Your task to perform on an android device: turn off location history Image 0: 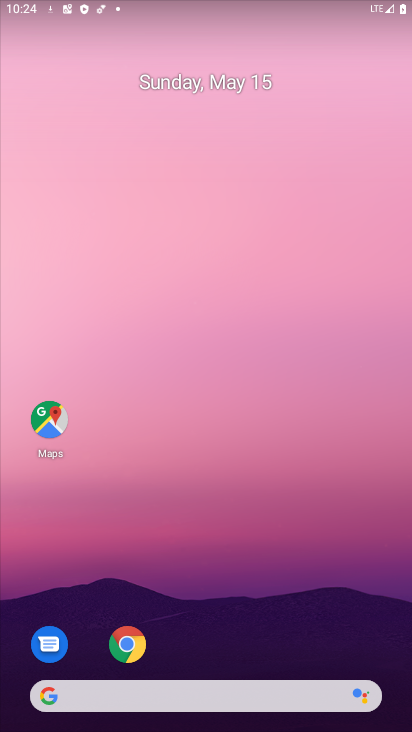
Step 0: drag from (250, 715) to (217, 357)
Your task to perform on an android device: turn off location history Image 1: 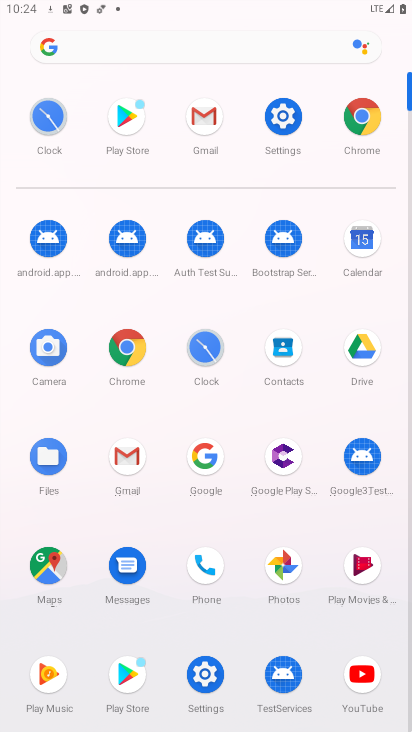
Step 1: click (207, 684)
Your task to perform on an android device: turn off location history Image 2: 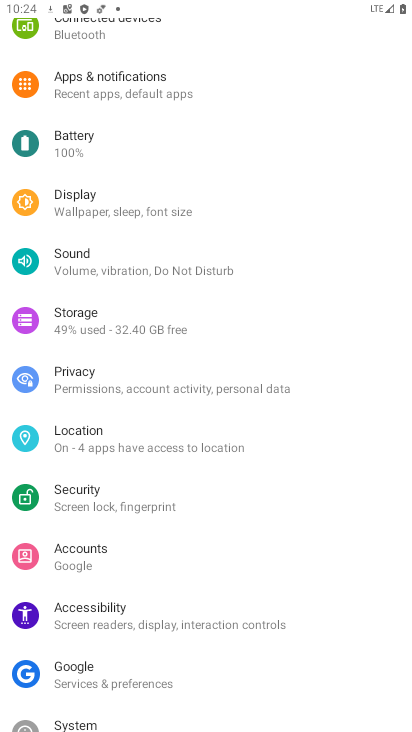
Step 2: drag from (128, 298) to (136, 599)
Your task to perform on an android device: turn off location history Image 3: 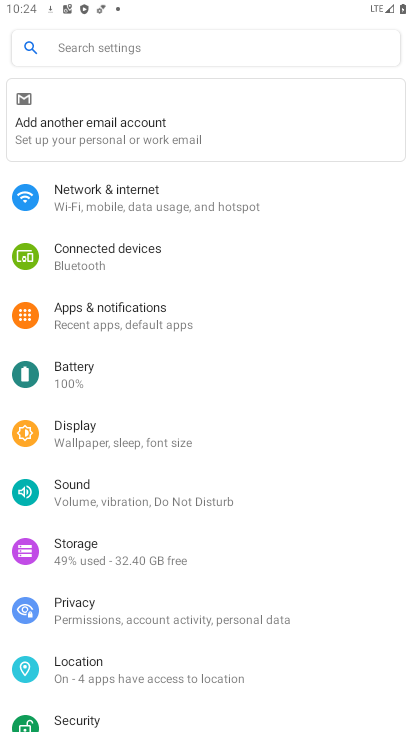
Step 3: click (118, 52)
Your task to perform on an android device: turn off location history Image 4: 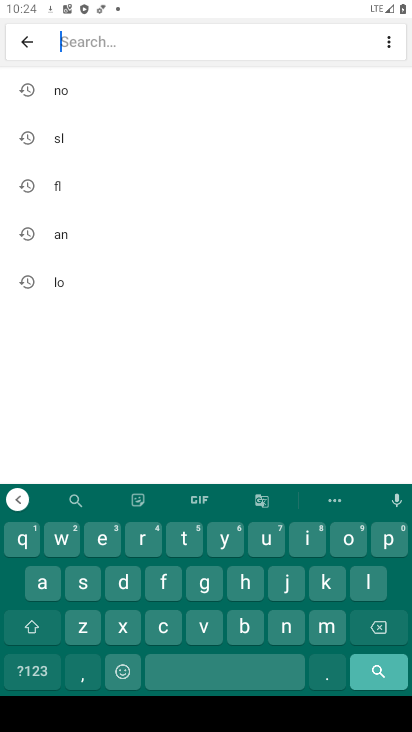
Step 4: click (76, 282)
Your task to perform on an android device: turn off location history Image 5: 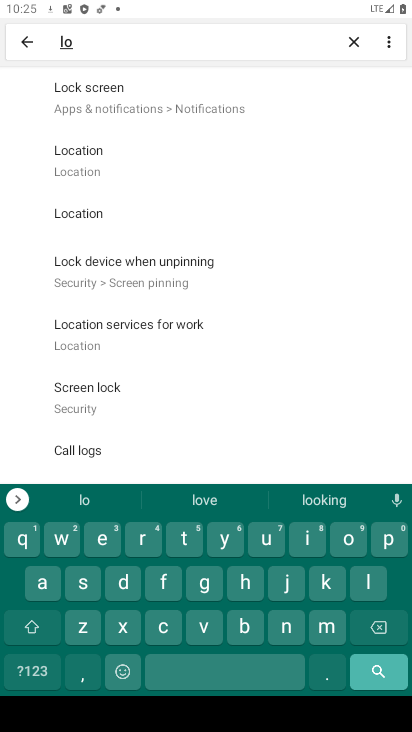
Step 5: click (119, 170)
Your task to perform on an android device: turn off location history Image 6: 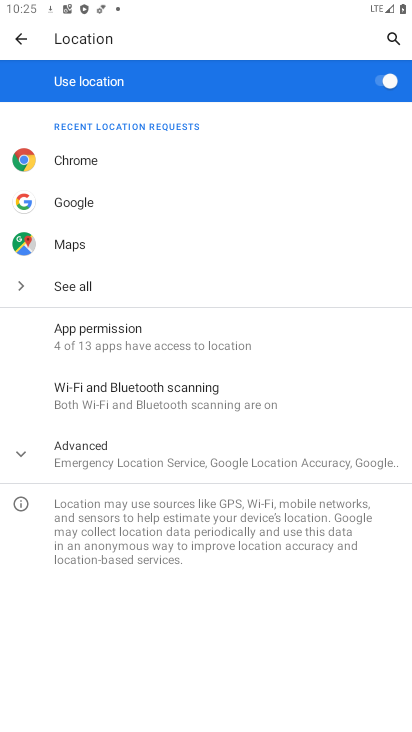
Step 6: click (57, 471)
Your task to perform on an android device: turn off location history Image 7: 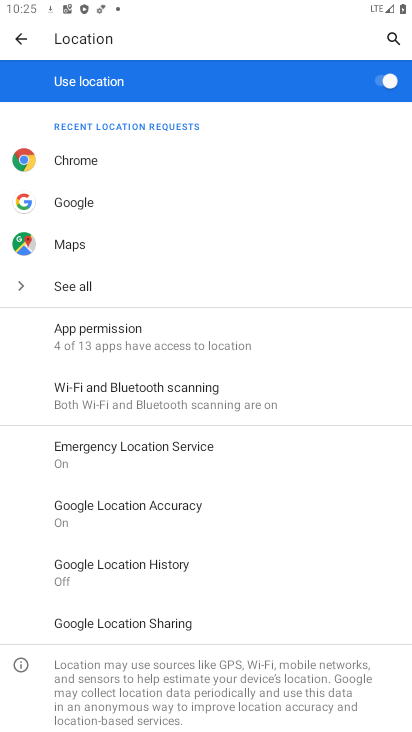
Step 7: click (179, 564)
Your task to perform on an android device: turn off location history Image 8: 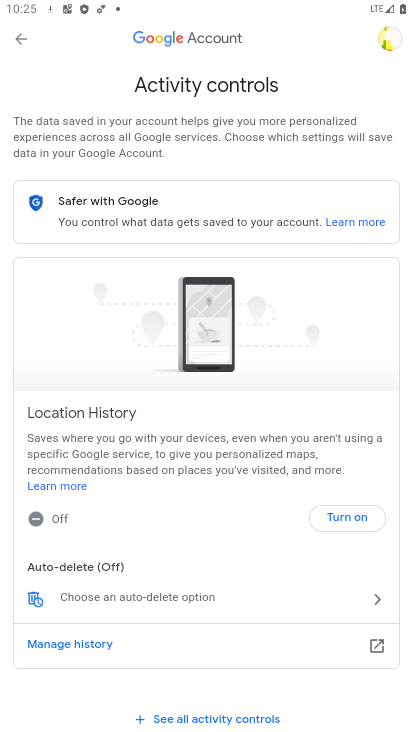
Step 8: task complete